Your task to perform on an android device: Turn on the flashlight Image 0: 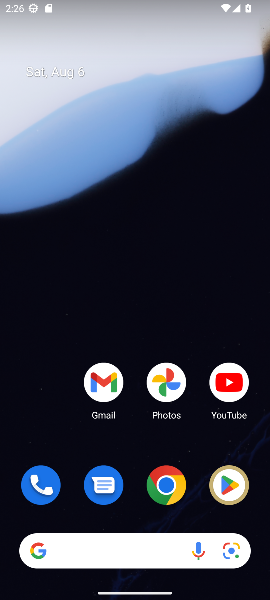
Step 0: press home button
Your task to perform on an android device: Turn on the flashlight Image 1: 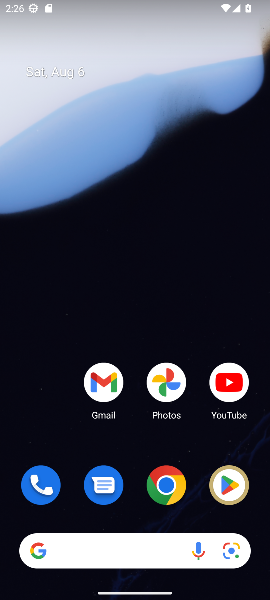
Step 1: drag from (133, 454) to (164, 40)
Your task to perform on an android device: Turn on the flashlight Image 2: 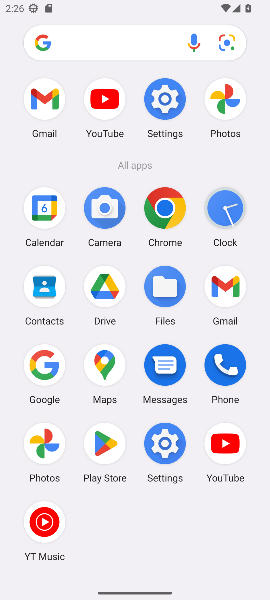
Step 2: click (162, 92)
Your task to perform on an android device: Turn on the flashlight Image 3: 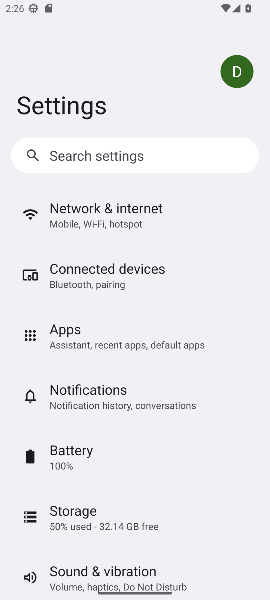
Step 3: click (82, 148)
Your task to perform on an android device: Turn on the flashlight Image 4: 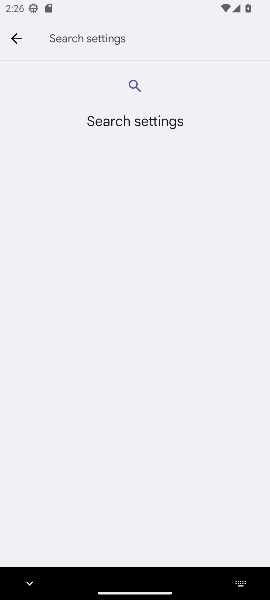
Step 4: type "flashlight"
Your task to perform on an android device: Turn on the flashlight Image 5: 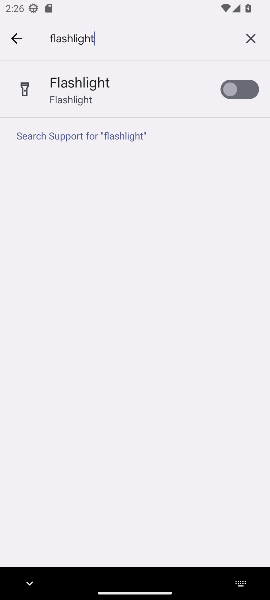
Step 5: click (240, 82)
Your task to perform on an android device: Turn on the flashlight Image 6: 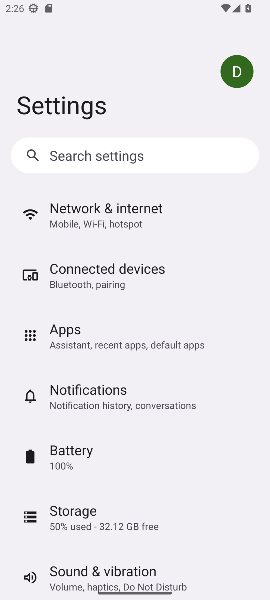
Step 6: task complete